Your task to perform on an android device: toggle javascript in the chrome app Image 0: 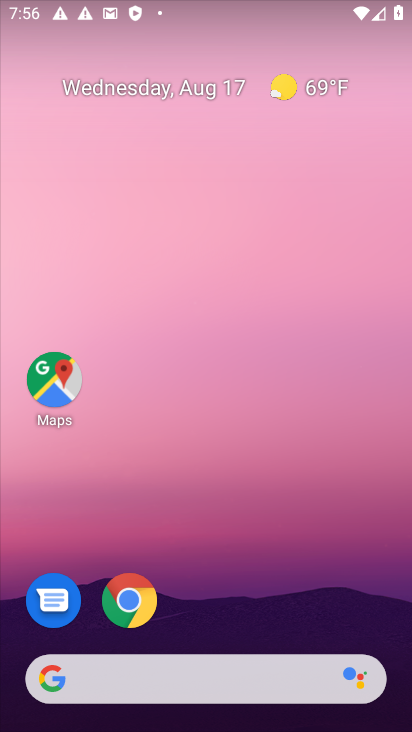
Step 0: press home button
Your task to perform on an android device: toggle javascript in the chrome app Image 1: 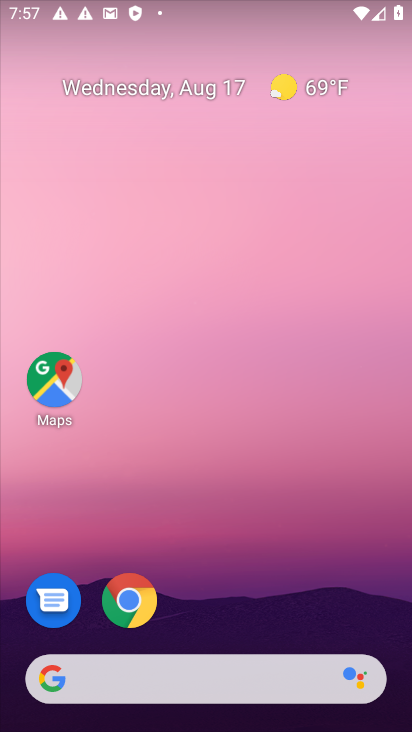
Step 1: click (136, 595)
Your task to perform on an android device: toggle javascript in the chrome app Image 2: 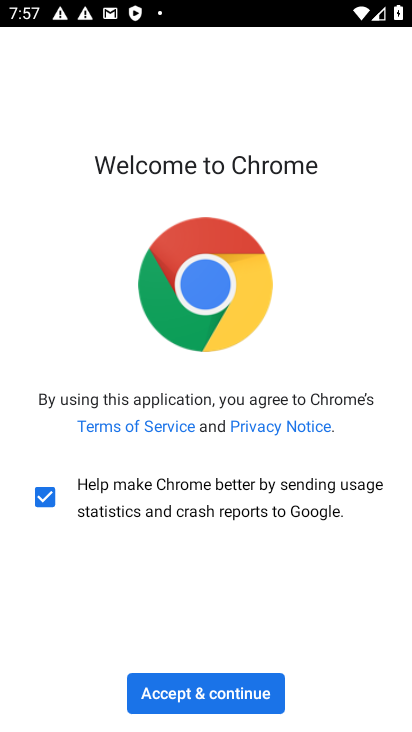
Step 2: click (204, 689)
Your task to perform on an android device: toggle javascript in the chrome app Image 3: 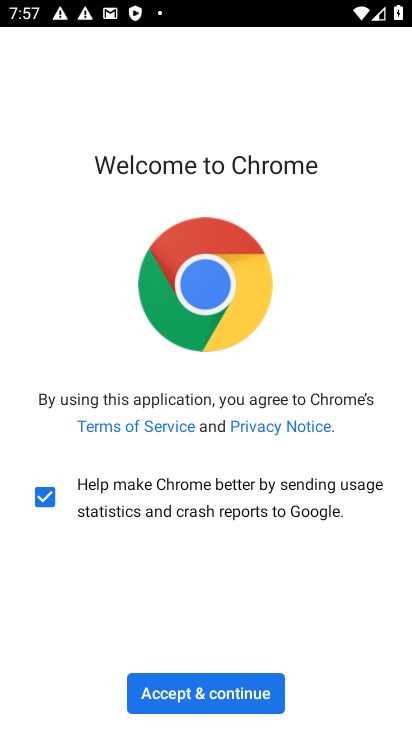
Step 3: click (204, 689)
Your task to perform on an android device: toggle javascript in the chrome app Image 4: 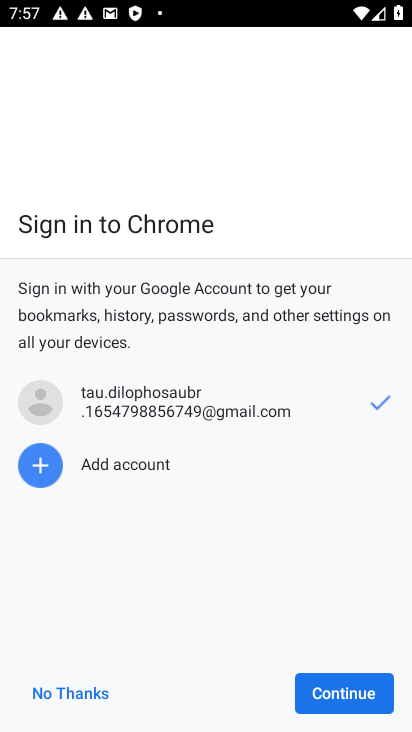
Step 4: click (364, 696)
Your task to perform on an android device: toggle javascript in the chrome app Image 5: 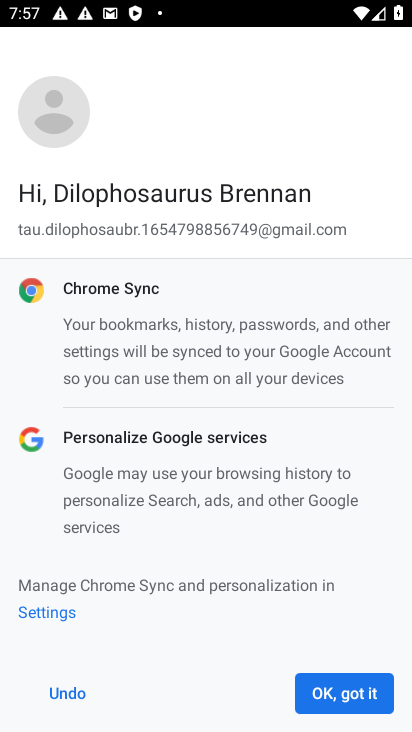
Step 5: click (377, 700)
Your task to perform on an android device: toggle javascript in the chrome app Image 6: 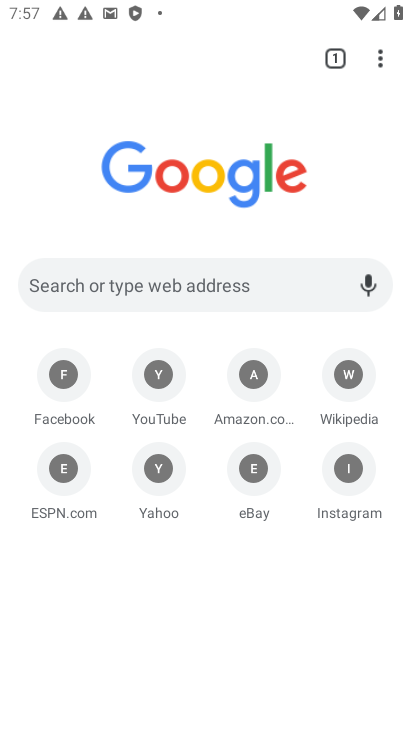
Step 6: drag from (381, 62) to (170, 491)
Your task to perform on an android device: toggle javascript in the chrome app Image 7: 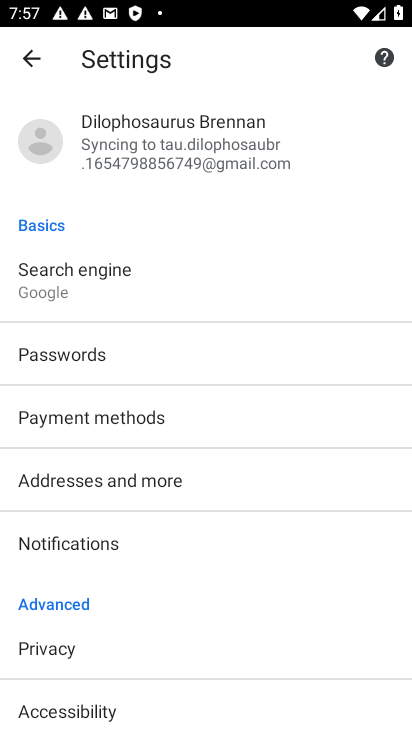
Step 7: drag from (121, 603) to (154, 267)
Your task to perform on an android device: toggle javascript in the chrome app Image 8: 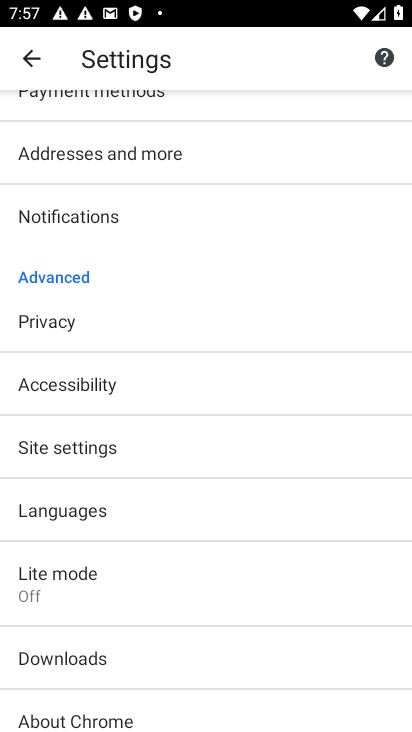
Step 8: click (106, 447)
Your task to perform on an android device: toggle javascript in the chrome app Image 9: 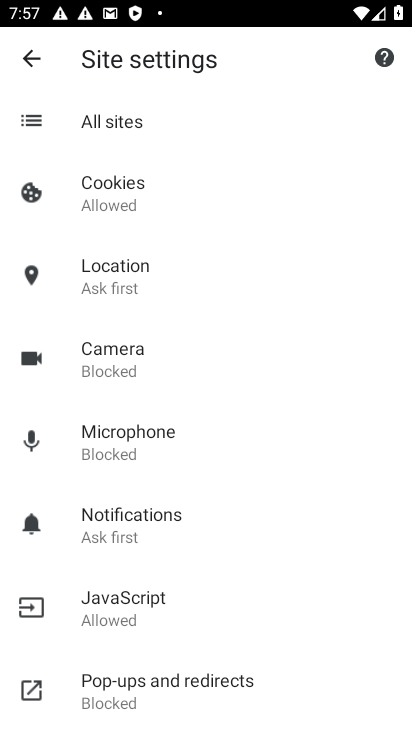
Step 9: click (114, 612)
Your task to perform on an android device: toggle javascript in the chrome app Image 10: 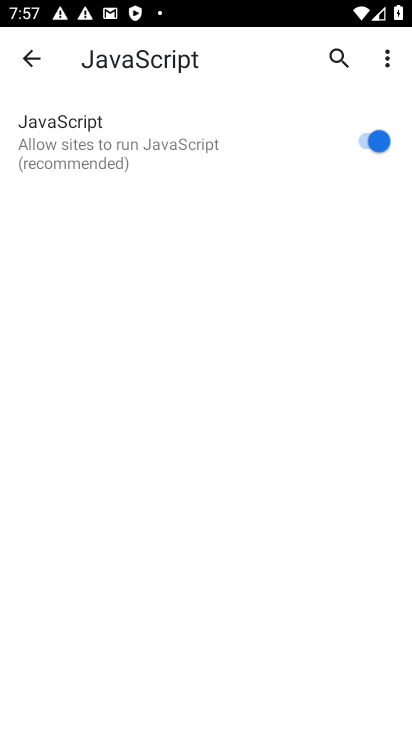
Step 10: click (376, 143)
Your task to perform on an android device: toggle javascript in the chrome app Image 11: 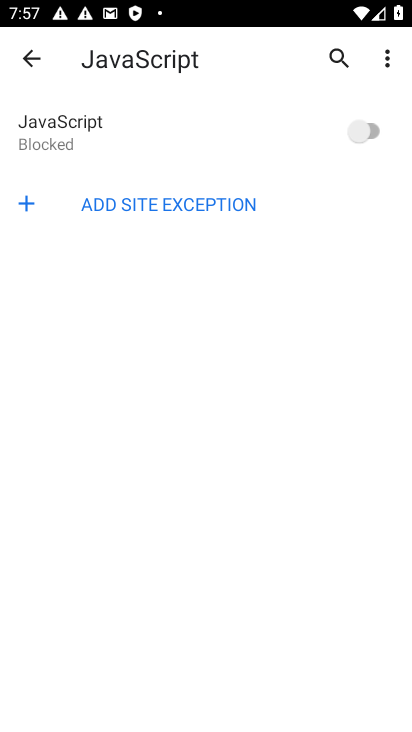
Step 11: task complete